Your task to perform on an android device: clear history in the chrome app Image 0: 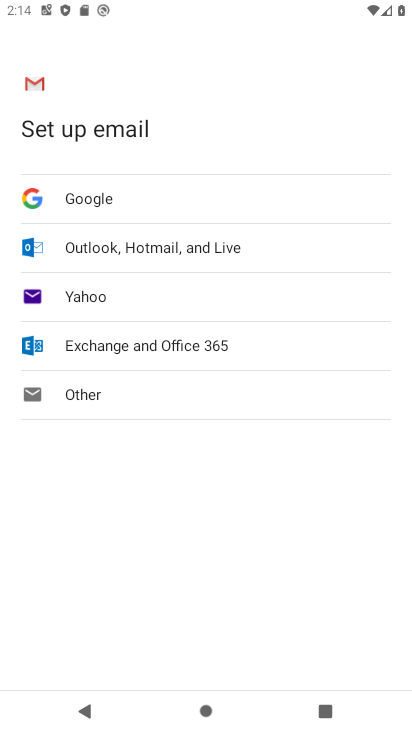
Step 0: press home button
Your task to perform on an android device: clear history in the chrome app Image 1: 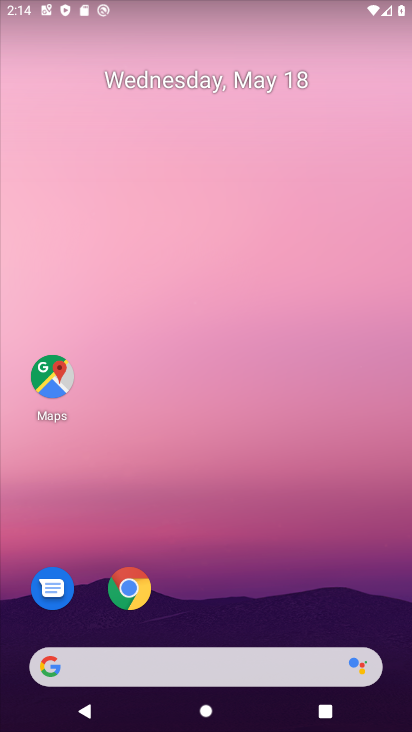
Step 1: drag from (342, 606) to (337, 129)
Your task to perform on an android device: clear history in the chrome app Image 2: 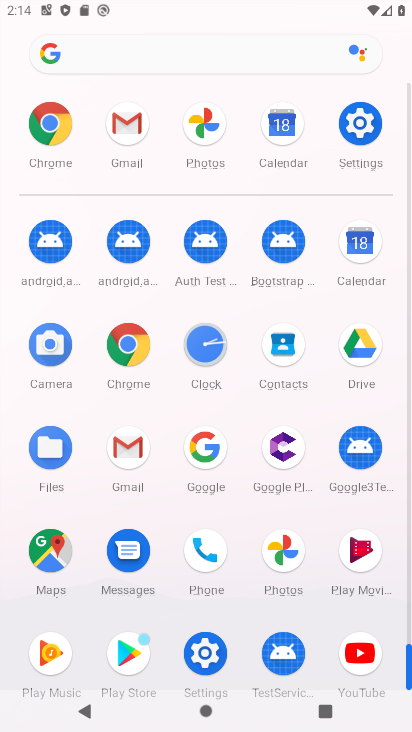
Step 2: click (123, 353)
Your task to perform on an android device: clear history in the chrome app Image 3: 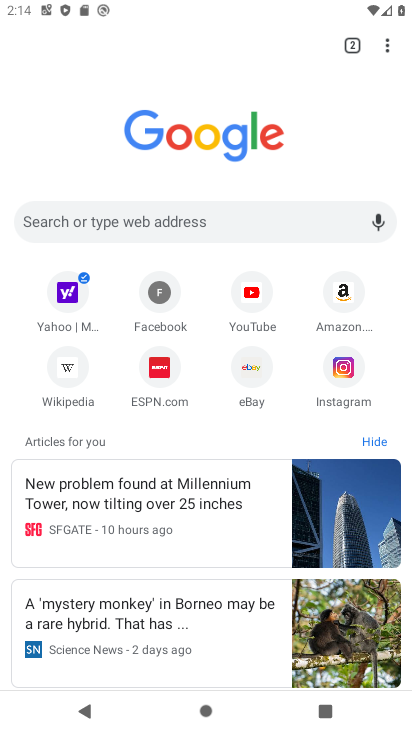
Step 3: click (386, 47)
Your task to perform on an android device: clear history in the chrome app Image 4: 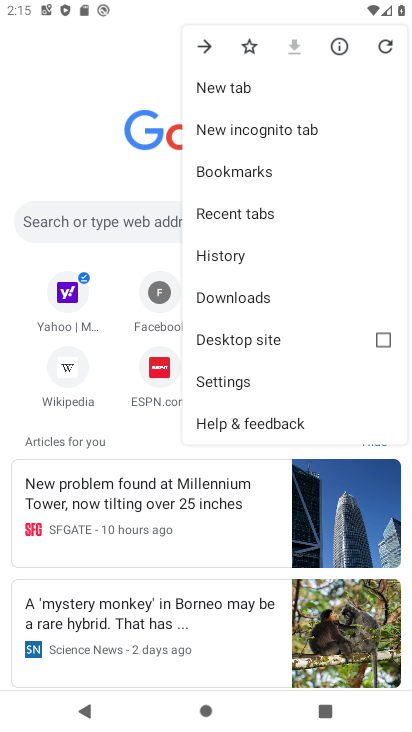
Step 4: click (260, 255)
Your task to perform on an android device: clear history in the chrome app Image 5: 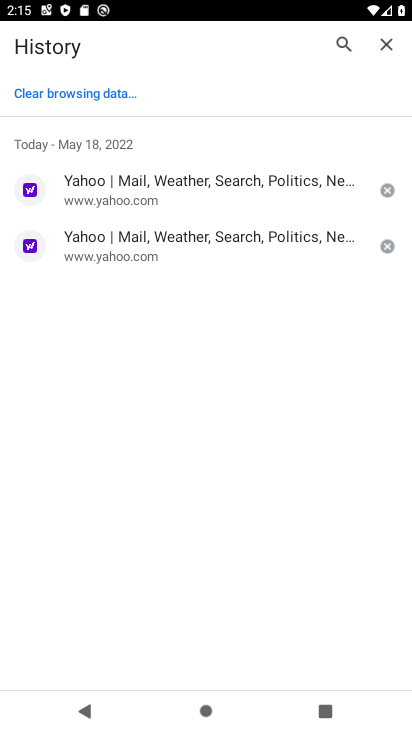
Step 5: click (85, 94)
Your task to perform on an android device: clear history in the chrome app Image 6: 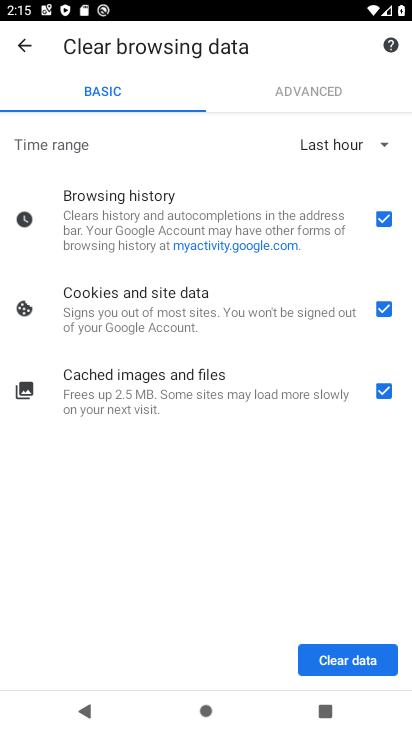
Step 6: click (347, 659)
Your task to perform on an android device: clear history in the chrome app Image 7: 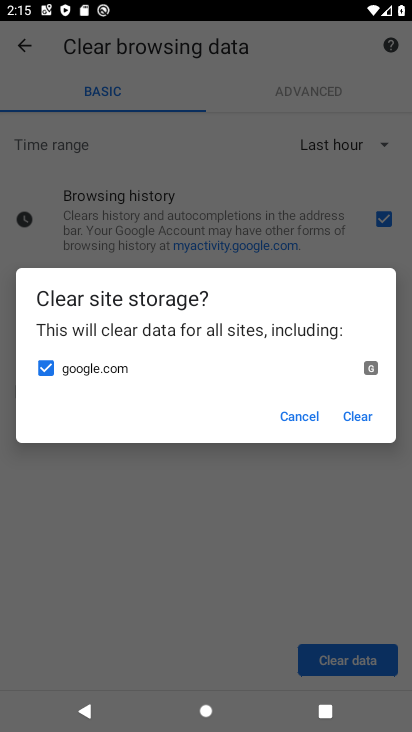
Step 7: click (365, 409)
Your task to perform on an android device: clear history in the chrome app Image 8: 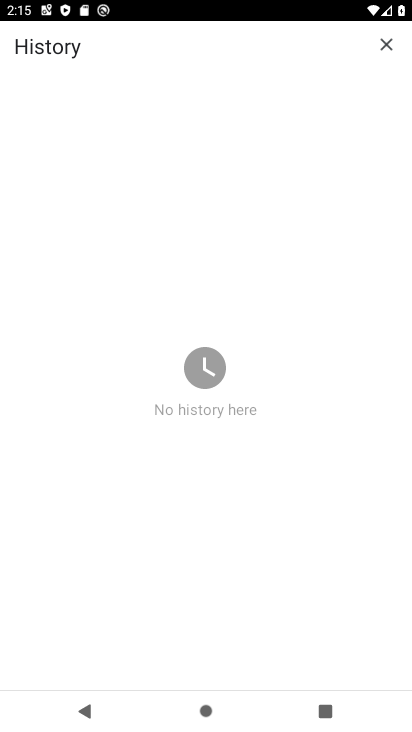
Step 8: task complete